Your task to perform on an android device: Open Yahoo.com Image 0: 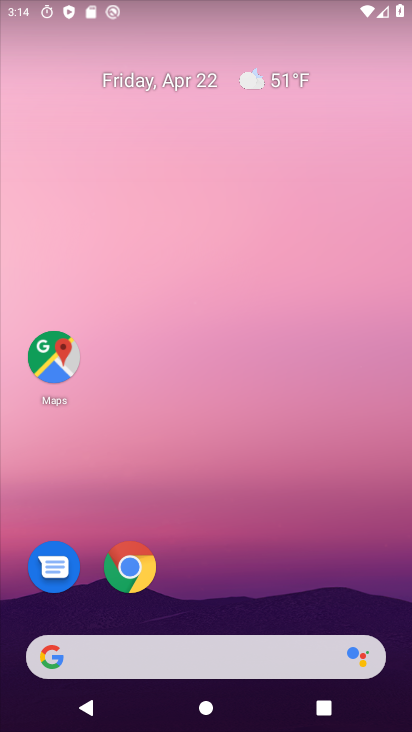
Step 0: click (131, 572)
Your task to perform on an android device: Open Yahoo.com Image 1: 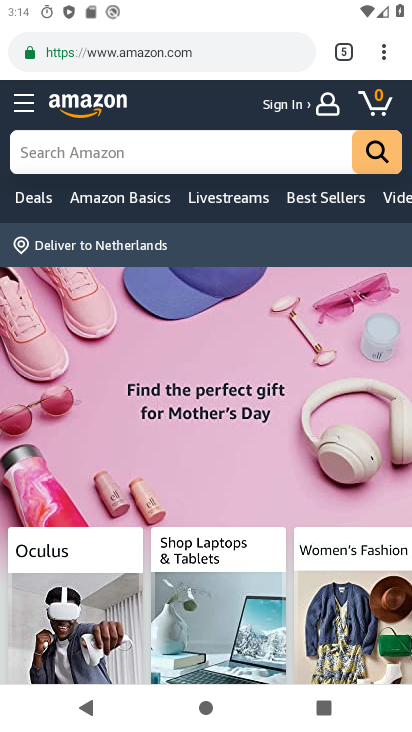
Step 1: click (345, 48)
Your task to perform on an android device: Open Yahoo.com Image 2: 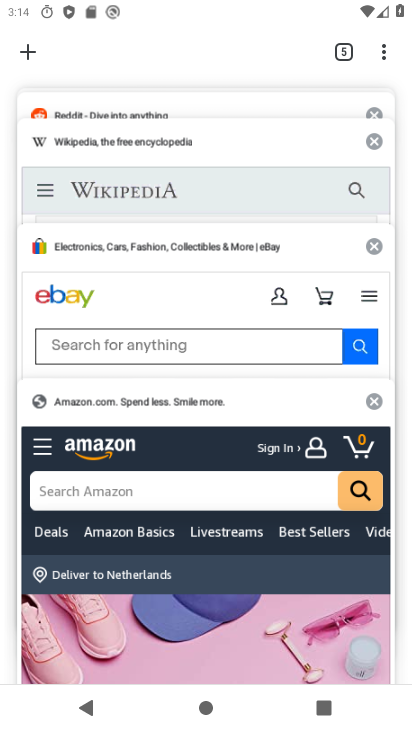
Step 2: click (25, 51)
Your task to perform on an android device: Open Yahoo.com Image 3: 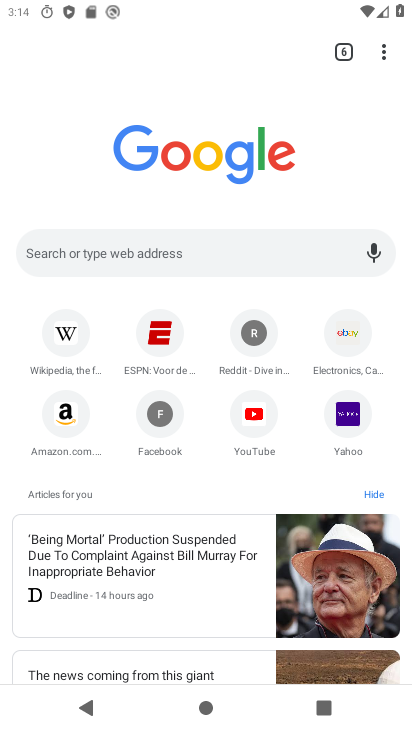
Step 3: click (350, 416)
Your task to perform on an android device: Open Yahoo.com Image 4: 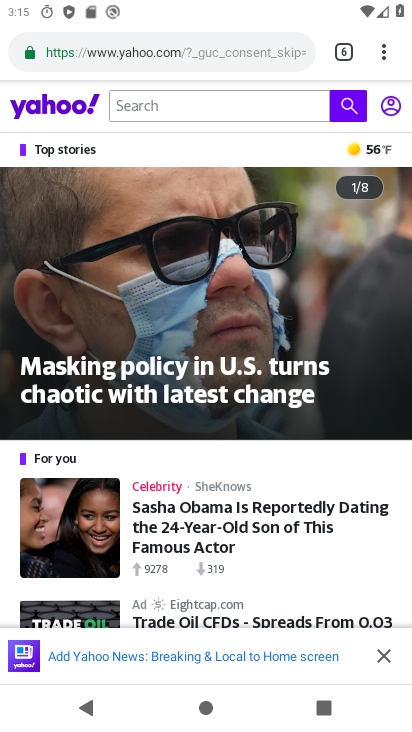
Step 4: task complete